Your task to perform on an android device: open chrome and create a bookmark for the current page Image 0: 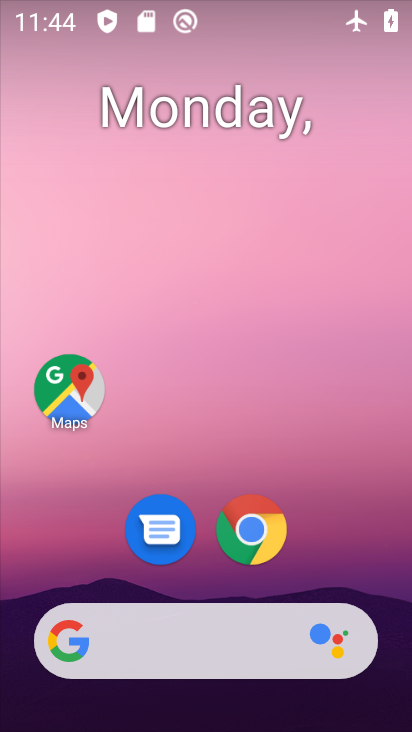
Step 0: click (260, 531)
Your task to perform on an android device: open chrome and create a bookmark for the current page Image 1: 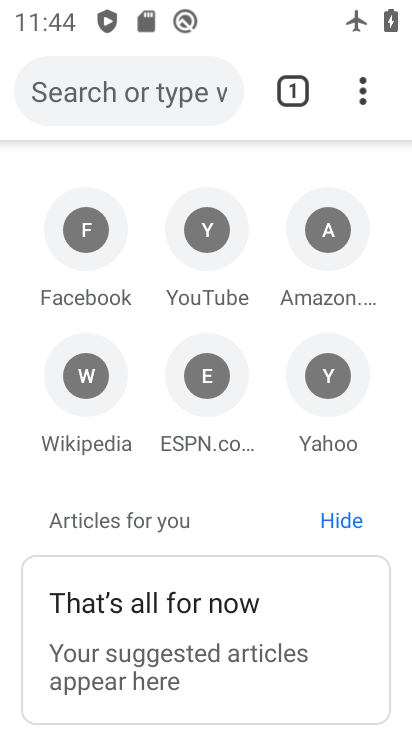
Step 1: click (364, 100)
Your task to perform on an android device: open chrome and create a bookmark for the current page Image 2: 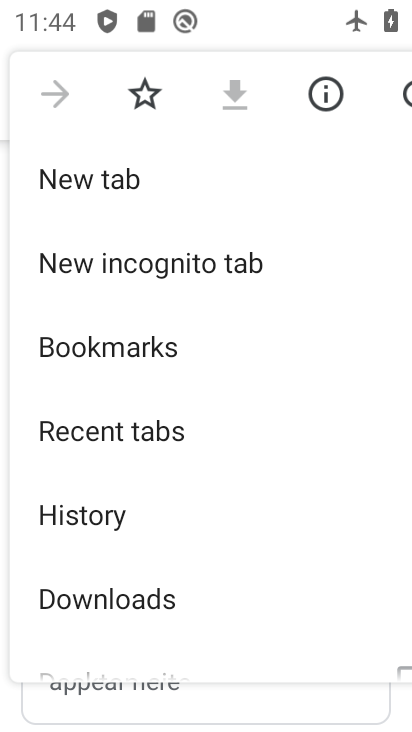
Step 2: click (147, 92)
Your task to perform on an android device: open chrome and create a bookmark for the current page Image 3: 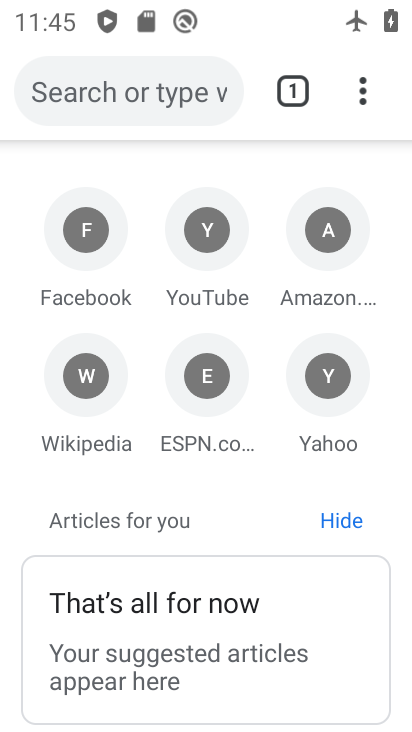
Step 3: task complete